Your task to perform on an android device: toggle airplane mode Image 0: 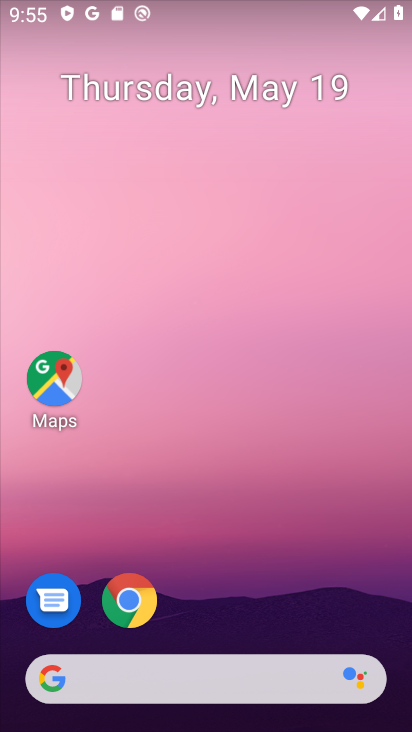
Step 0: drag from (289, 584) to (283, 11)
Your task to perform on an android device: toggle airplane mode Image 1: 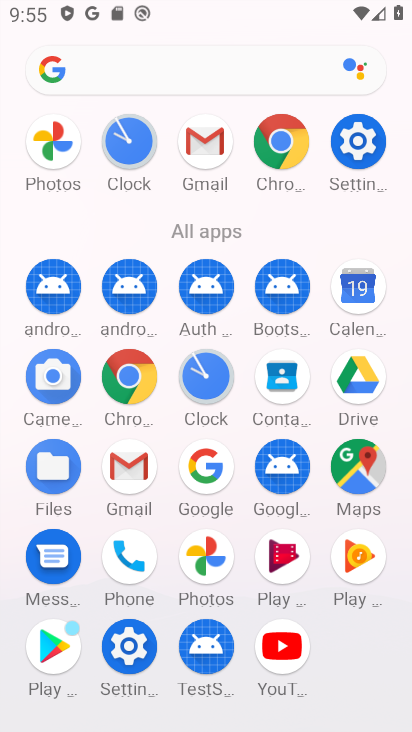
Step 1: click (360, 134)
Your task to perform on an android device: toggle airplane mode Image 2: 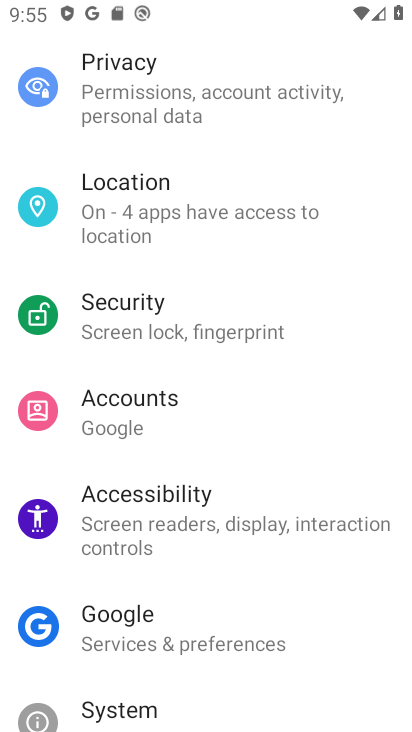
Step 2: drag from (207, 48) to (254, 557)
Your task to perform on an android device: toggle airplane mode Image 3: 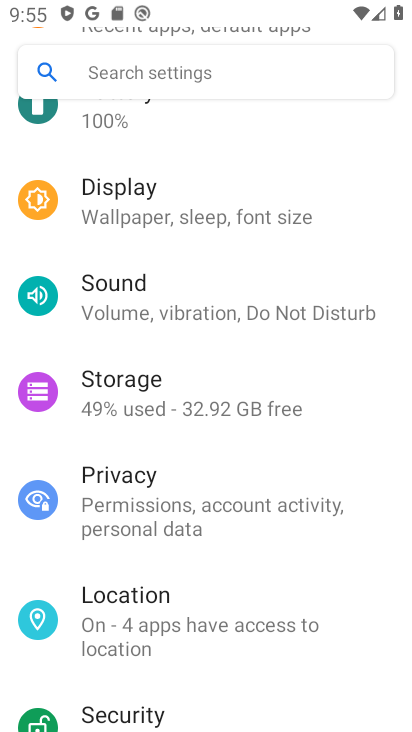
Step 3: drag from (196, 143) to (236, 548)
Your task to perform on an android device: toggle airplane mode Image 4: 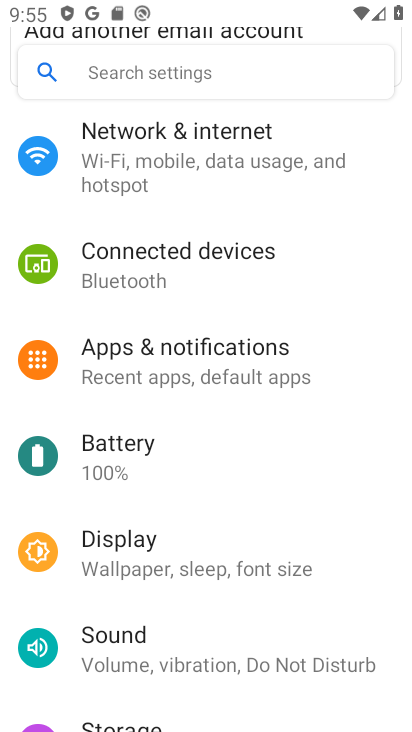
Step 4: drag from (254, 210) to (256, 617)
Your task to perform on an android device: toggle airplane mode Image 5: 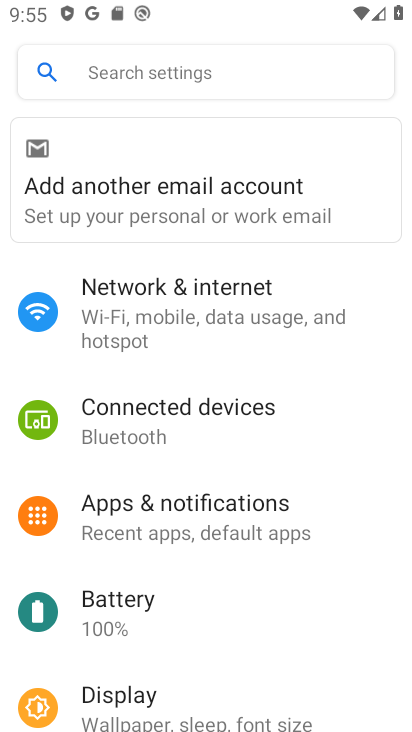
Step 5: click (209, 309)
Your task to perform on an android device: toggle airplane mode Image 6: 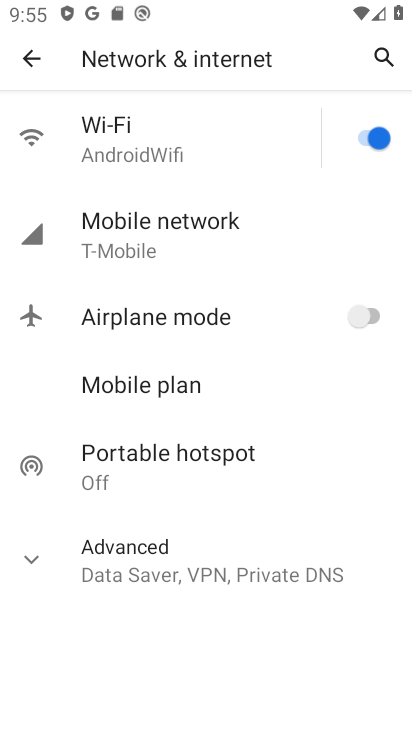
Step 6: click (38, 550)
Your task to perform on an android device: toggle airplane mode Image 7: 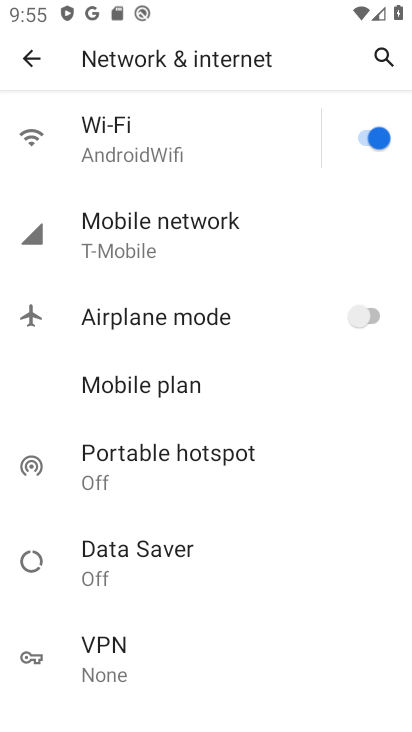
Step 7: click (371, 314)
Your task to perform on an android device: toggle airplane mode Image 8: 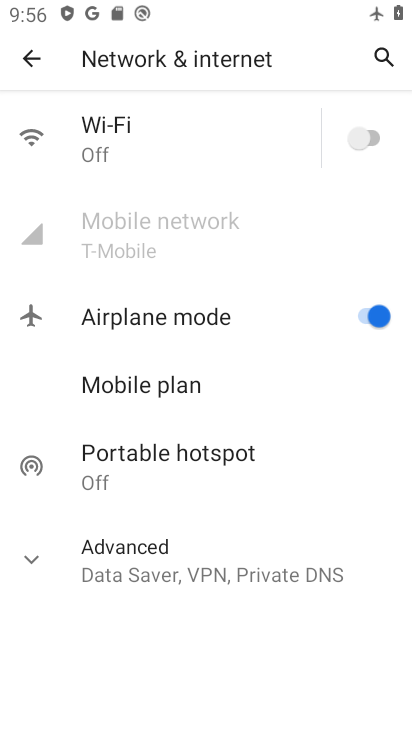
Step 8: task complete